Your task to perform on an android device: Open settings Image 0: 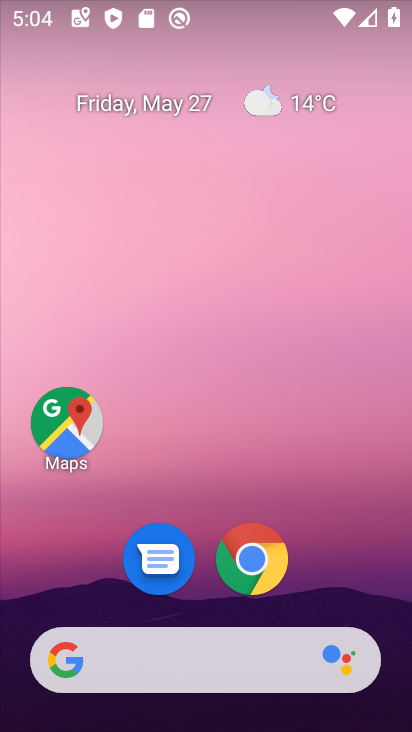
Step 0: drag from (318, 546) to (315, 51)
Your task to perform on an android device: Open settings Image 1: 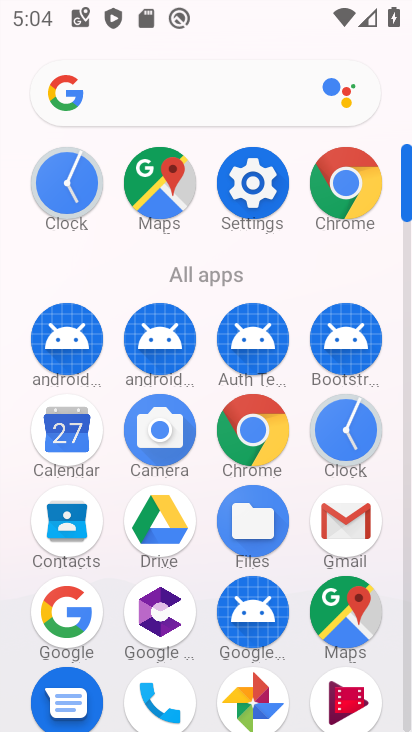
Step 1: click (251, 174)
Your task to perform on an android device: Open settings Image 2: 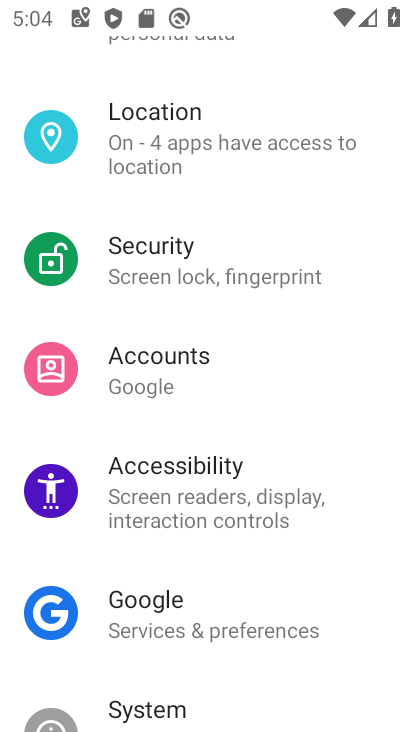
Step 2: task complete